Your task to perform on an android device: Show me the alarms in the clock app Image 0: 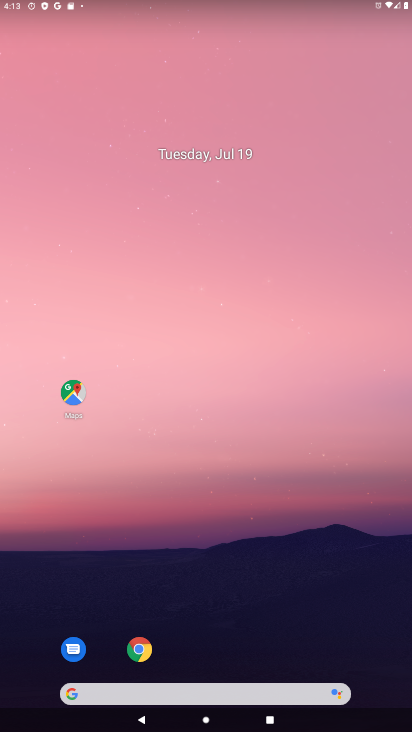
Step 0: drag from (241, 633) to (156, 147)
Your task to perform on an android device: Show me the alarms in the clock app Image 1: 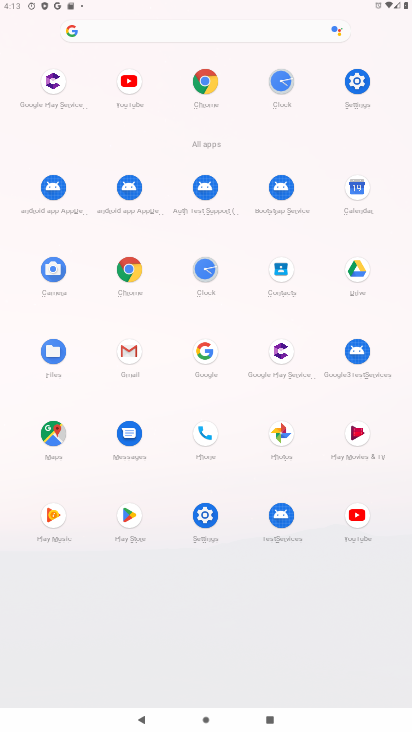
Step 1: click (280, 85)
Your task to perform on an android device: Show me the alarms in the clock app Image 2: 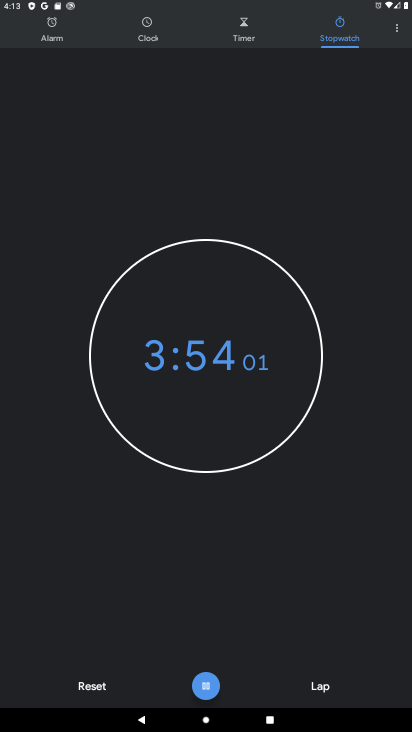
Step 2: click (54, 32)
Your task to perform on an android device: Show me the alarms in the clock app Image 3: 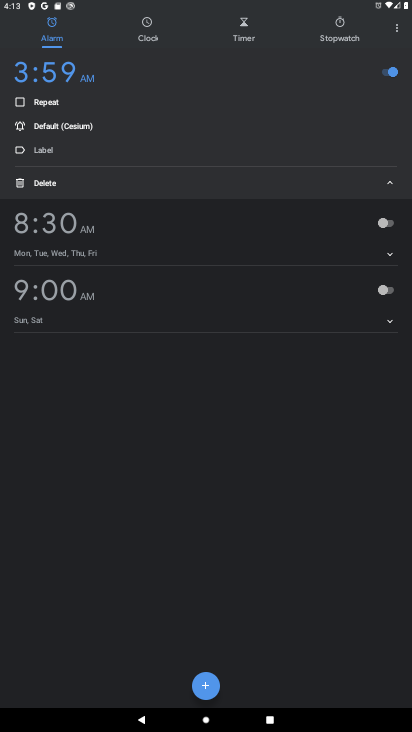
Step 3: task complete